Your task to perform on an android device: check battery use Image 0: 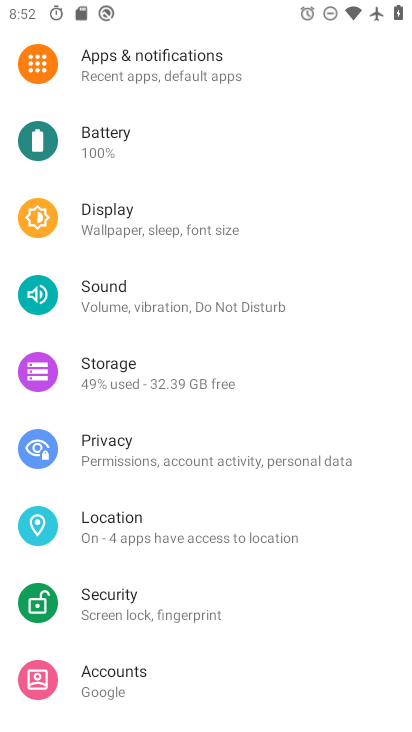
Step 0: press home button
Your task to perform on an android device: check battery use Image 1: 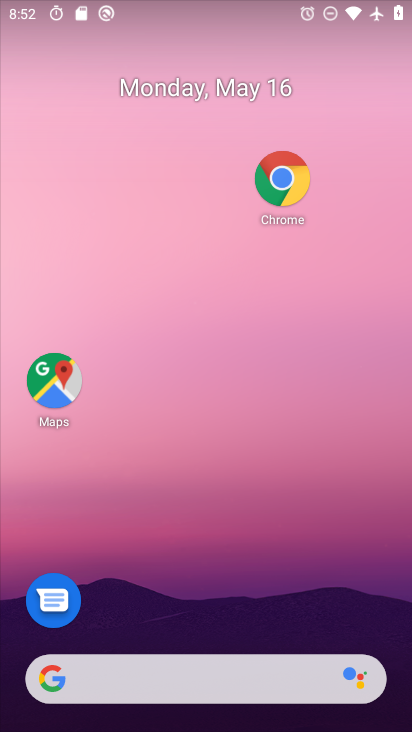
Step 1: drag from (174, 680) to (277, 94)
Your task to perform on an android device: check battery use Image 2: 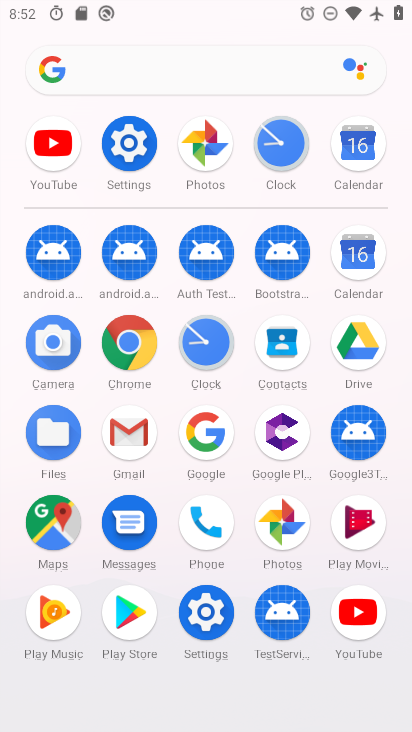
Step 2: click (123, 136)
Your task to perform on an android device: check battery use Image 3: 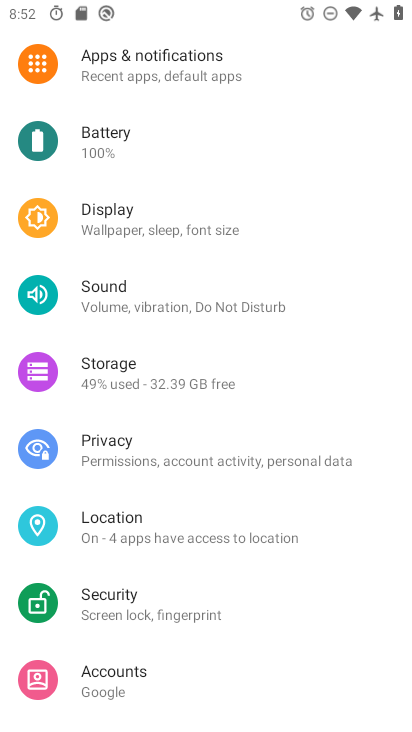
Step 3: click (104, 131)
Your task to perform on an android device: check battery use Image 4: 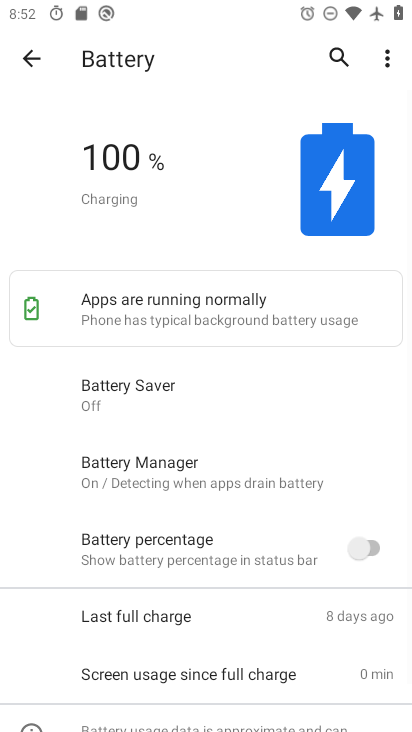
Step 4: click (381, 59)
Your task to perform on an android device: check battery use Image 5: 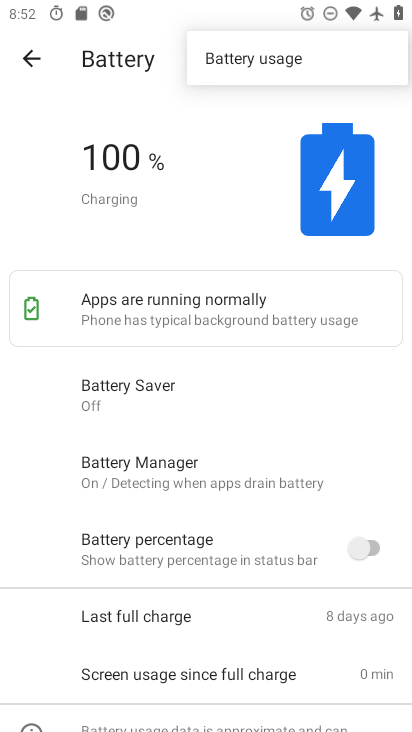
Step 5: click (251, 61)
Your task to perform on an android device: check battery use Image 6: 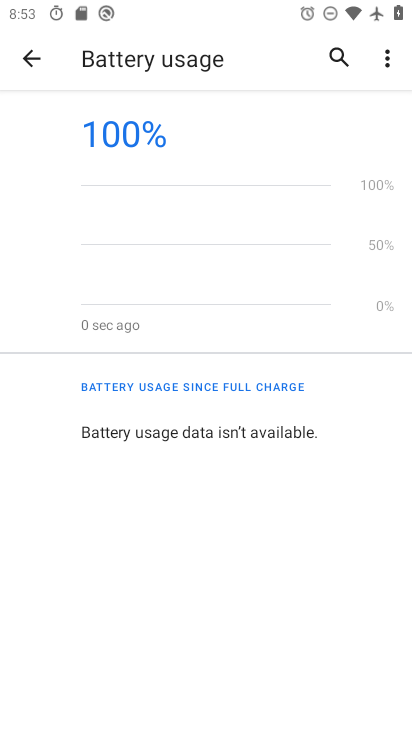
Step 6: task complete